Your task to perform on an android device: turn pop-ups on in chrome Image 0: 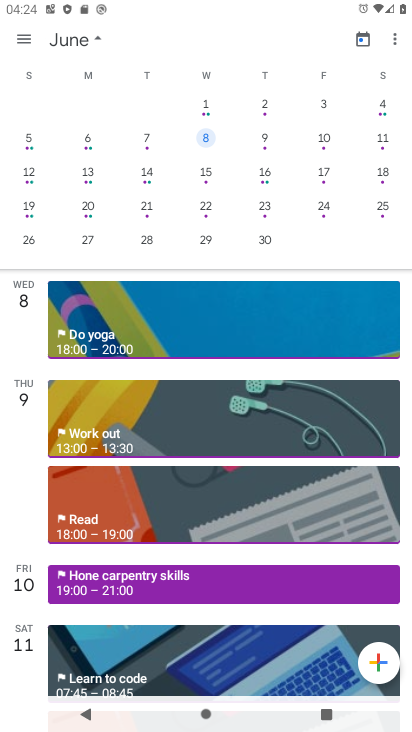
Step 0: press home button
Your task to perform on an android device: turn pop-ups on in chrome Image 1: 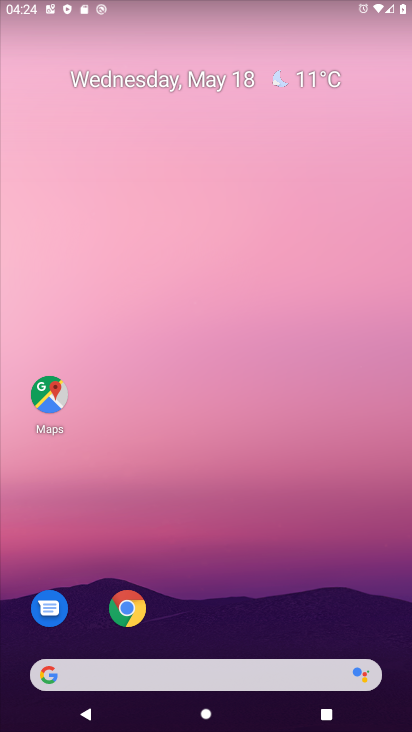
Step 1: click (133, 610)
Your task to perform on an android device: turn pop-ups on in chrome Image 2: 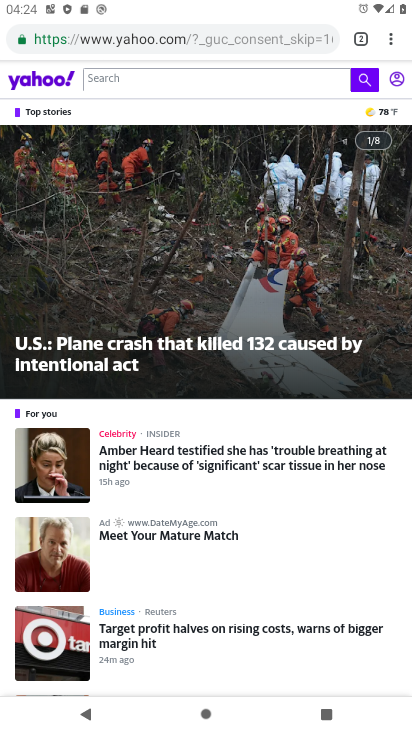
Step 2: click (397, 43)
Your task to perform on an android device: turn pop-ups on in chrome Image 3: 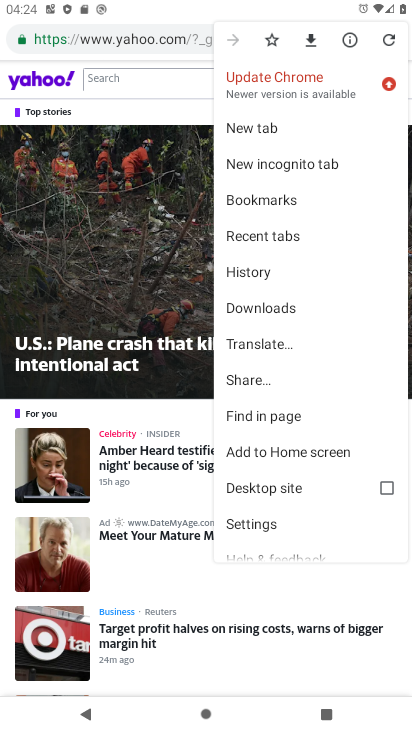
Step 3: click (261, 524)
Your task to perform on an android device: turn pop-ups on in chrome Image 4: 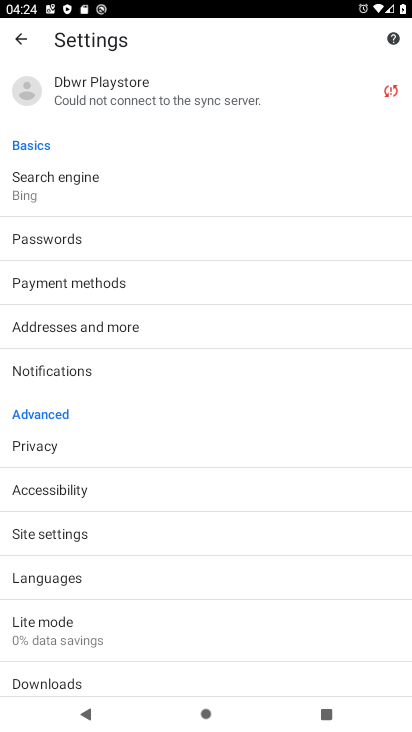
Step 4: drag from (261, 524) to (201, 21)
Your task to perform on an android device: turn pop-ups on in chrome Image 5: 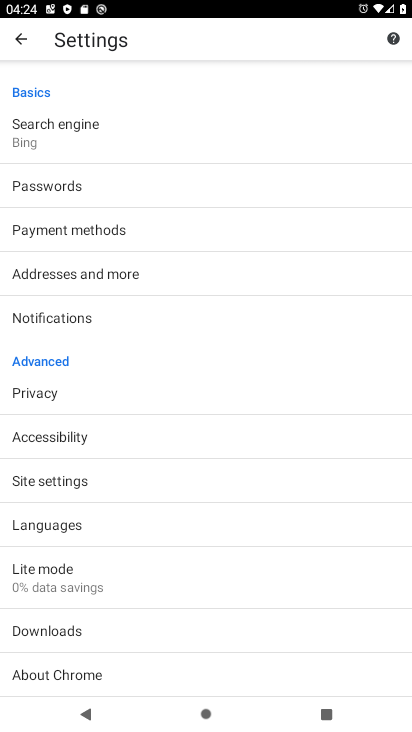
Step 5: drag from (233, 128) to (161, 632)
Your task to perform on an android device: turn pop-ups on in chrome Image 6: 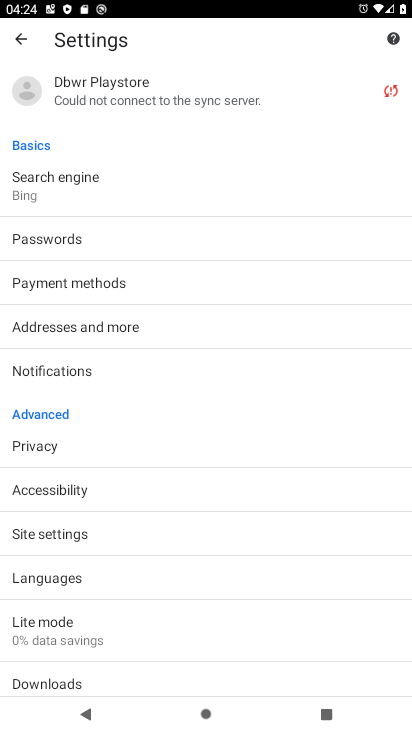
Step 6: click (106, 529)
Your task to perform on an android device: turn pop-ups on in chrome Image 7: 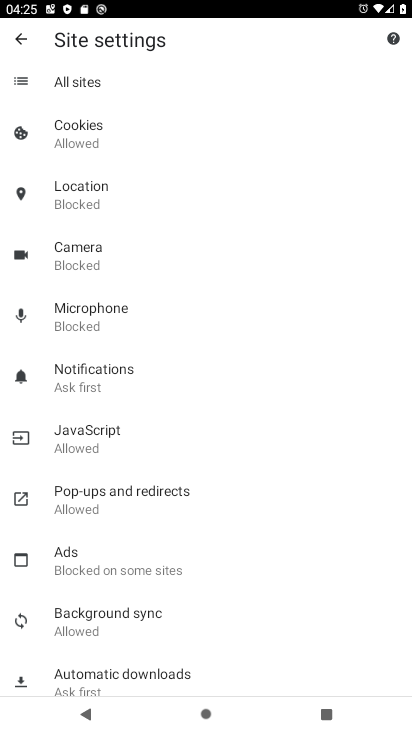
Step 7: click (116, 502)
Your task to perform on an android device: turn pop-ups on in chrome Image 8: 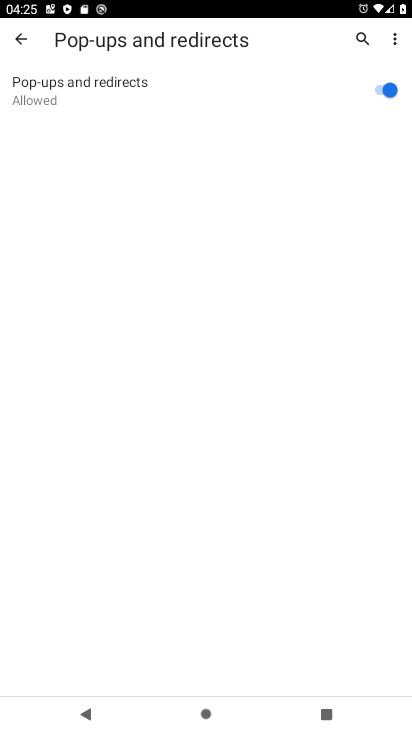
Step 8: task complete